Your task to perform on an android device: read, delete, or share a saved page in the chrome app Image 0: 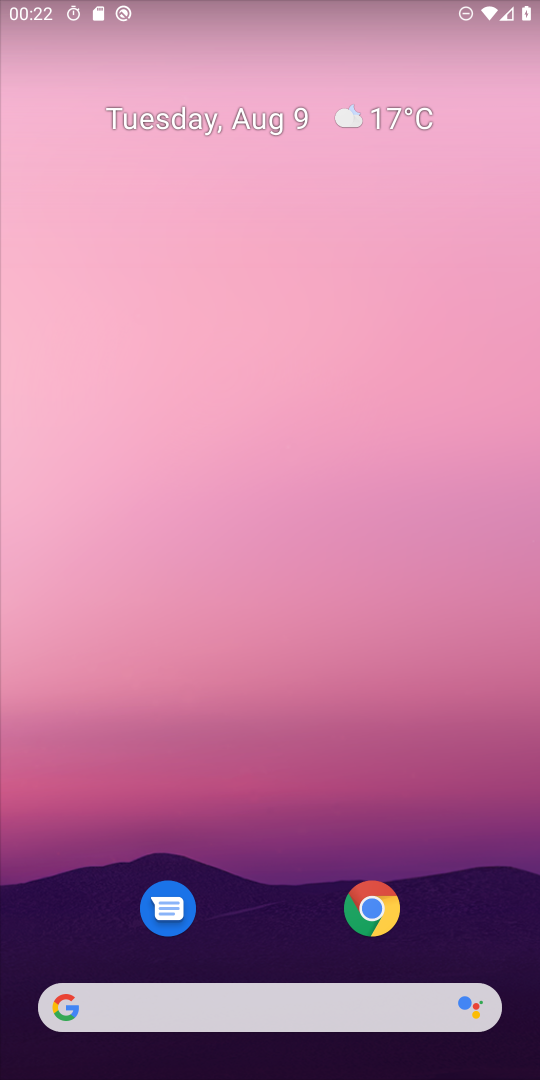
Step 0: press home button
Your task to perform on an android device: read, delete, or share a saved page in the chrome app Image 1: 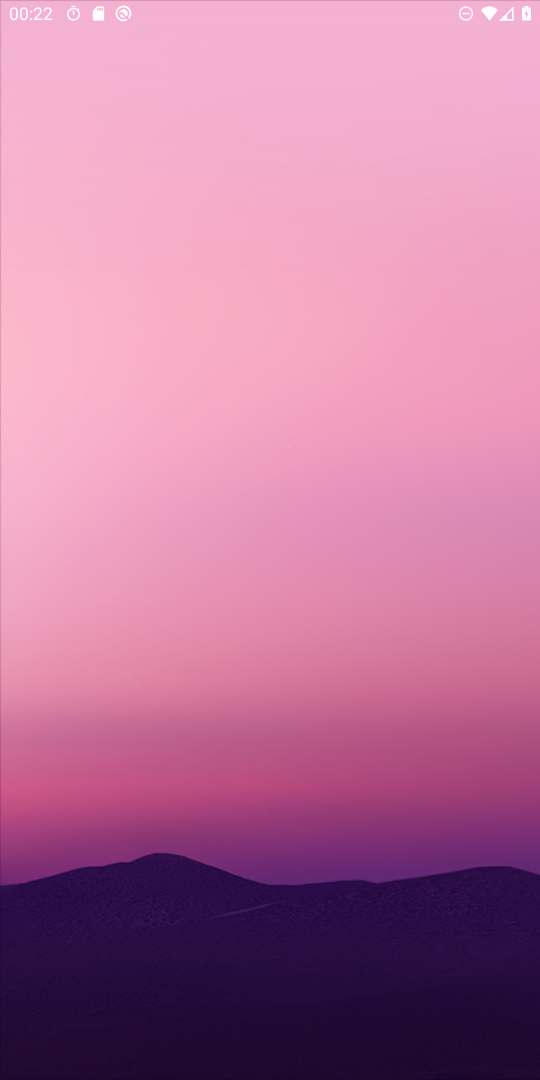
Step 1: press home button
Your task to perform on an android device: read, delete, or share a saved page in the chrome app Image 2: 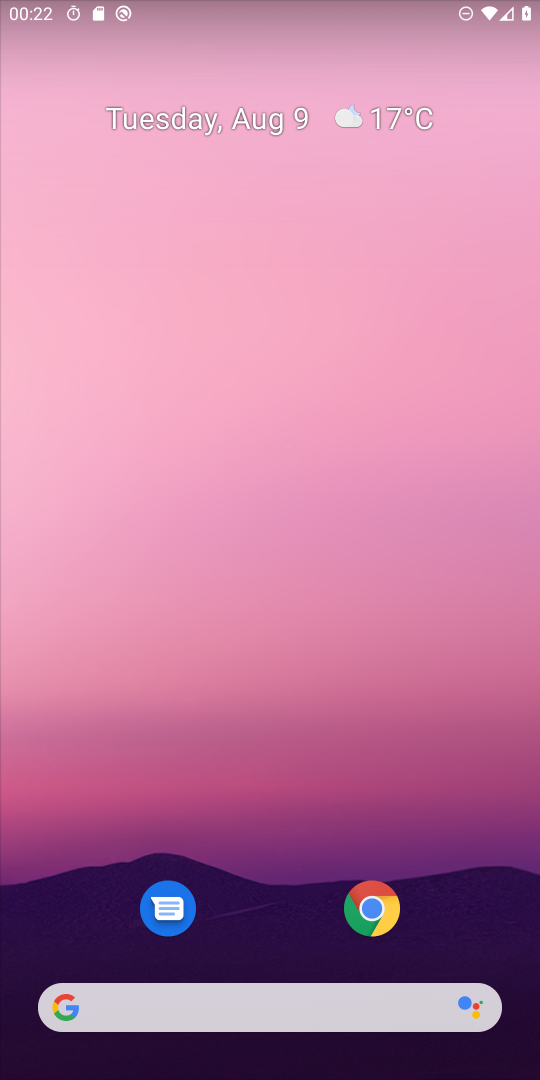
Step 2: click (385, 916)
Your task to perform on an android device: read, delete, or share a saved page in the chrome app Image 3: 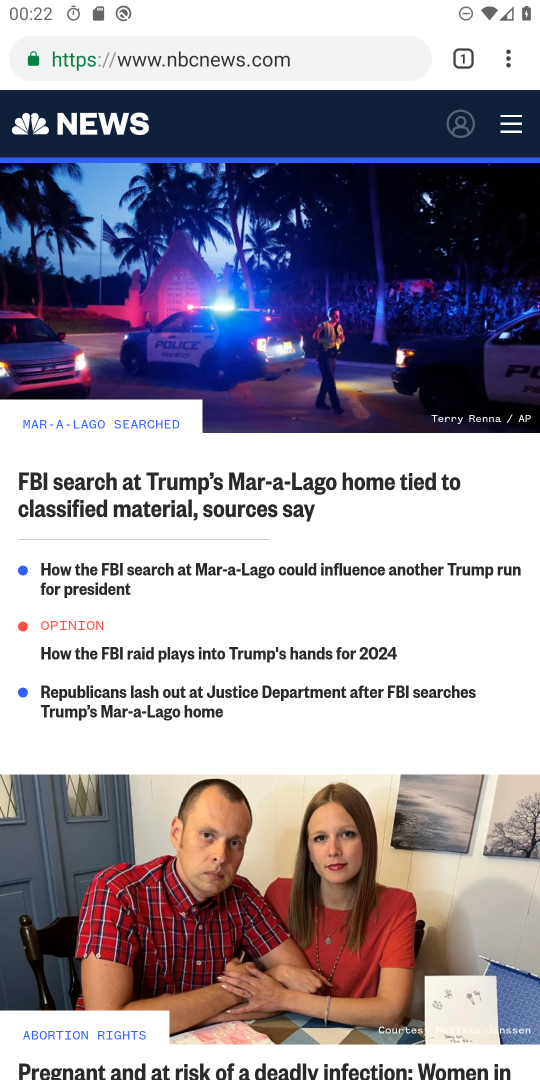
Step 3: click (516, 68)
Your task to perform on an android device: read, delete, or share a saved page in the chrome app Image 4: 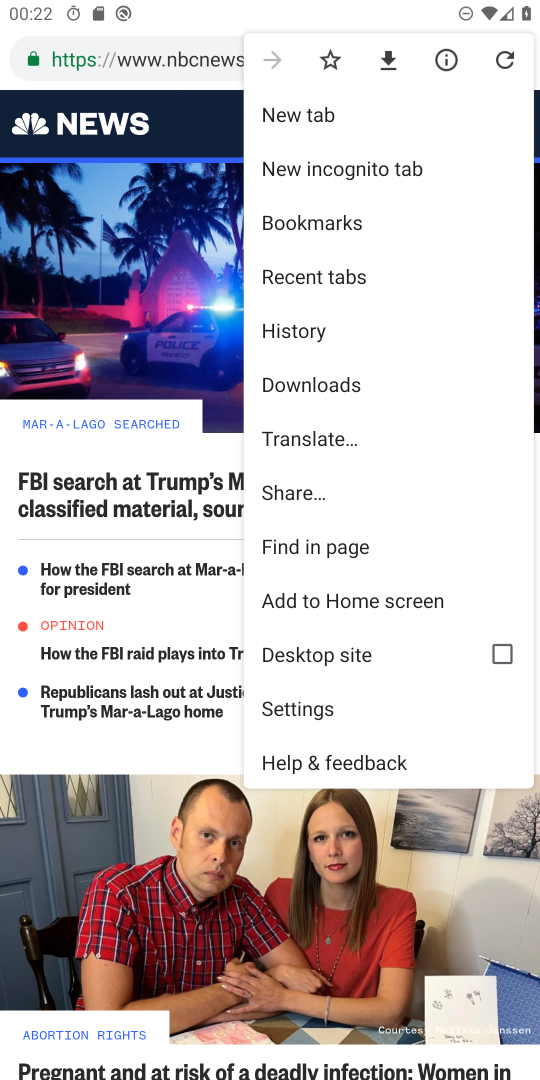
Step 4: click (323, 382)
Your task to perform on an android device: read, delete, or share a saved page in the chrome app Image 5: 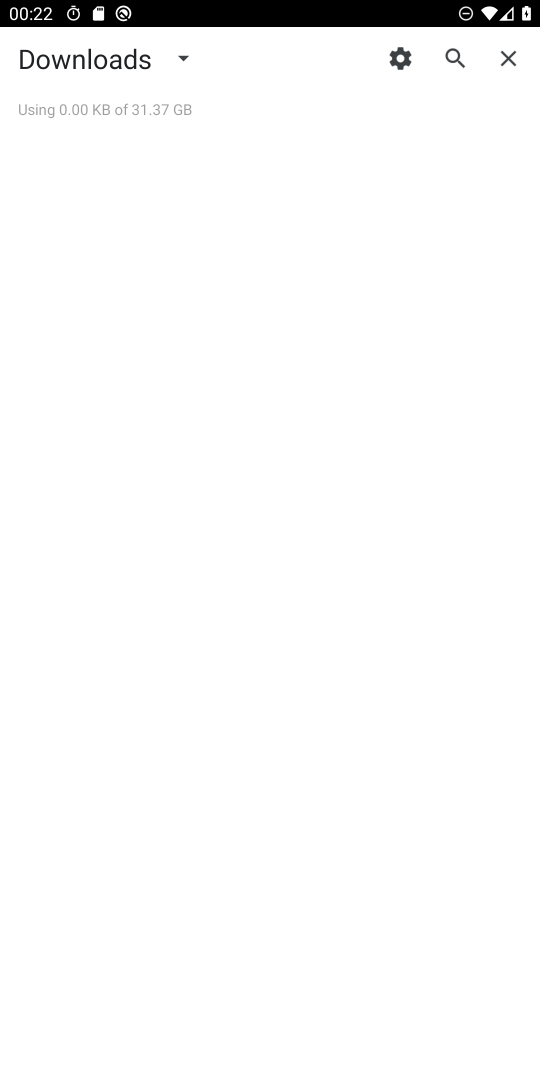
Step 5: click (177, 57)
Your task to perform on an android device: read, delete, or share a saved page in the chrome app Image 6: 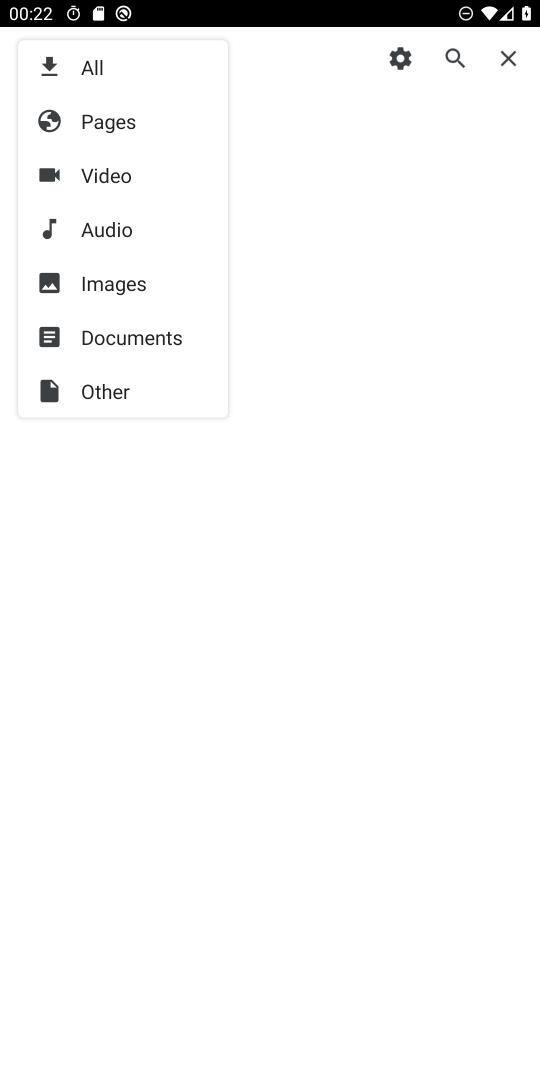
Step 6: click (132, 121)
Your task to perform on an android device: read, delete, or share a saved page in the chrome app Image 7: 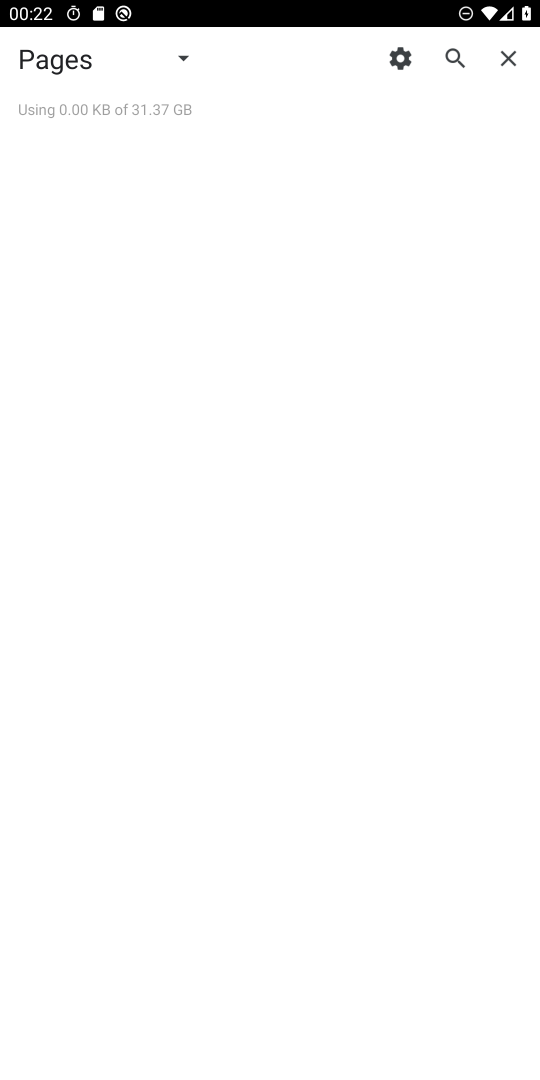
Step 7: task complete